Your task to perform on an android device: open a new tab in the chrome app Image 0: 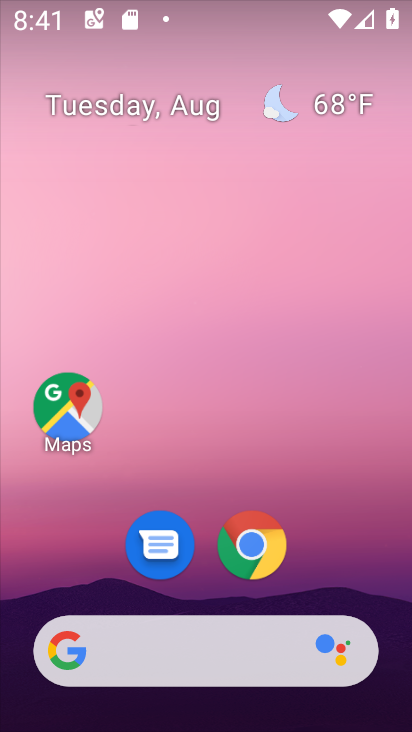
Step 0: drag from (229, 487) to (247, 176)
Your task to perform on an android device: open a new tab in the chrome app Image 1: 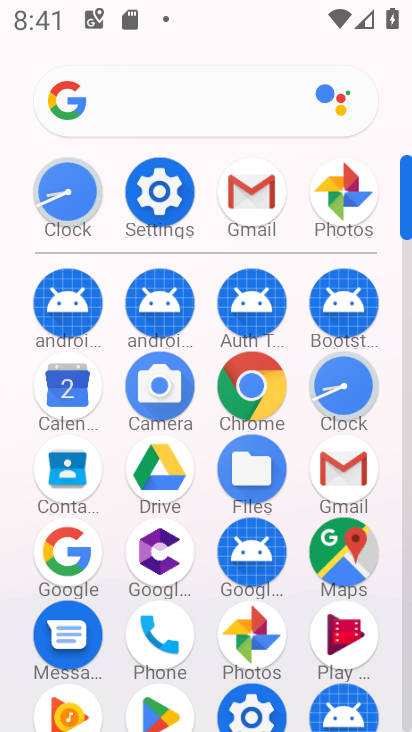
Step 1: click (219, 416)
Your task to perform on an android device: open a new tab in the chrome app Image 2: 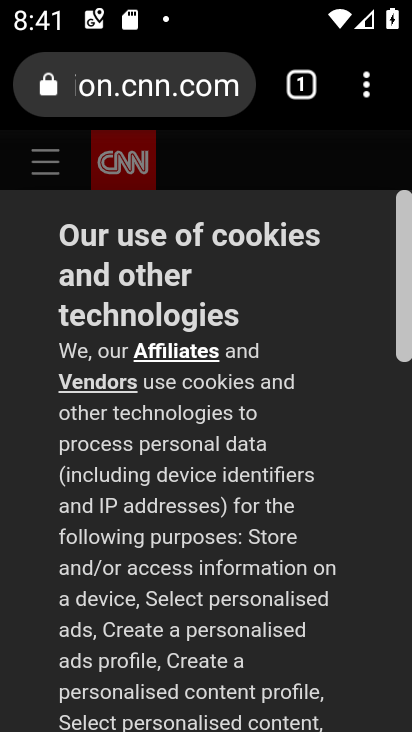
Step 2: drag from (308, 95) to (265, 391)
Your task to perform on an android device: open a new tab in the chrome app Image 3: 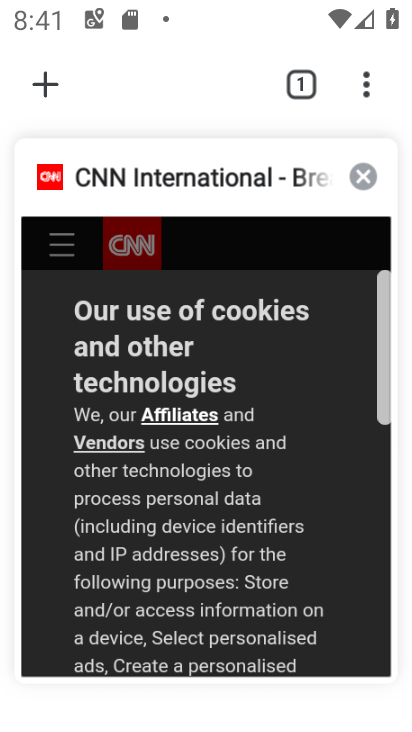
Step 3: click (45, 82)
Your task to perform on an android device: open a new tab in the chrome app Image 4: 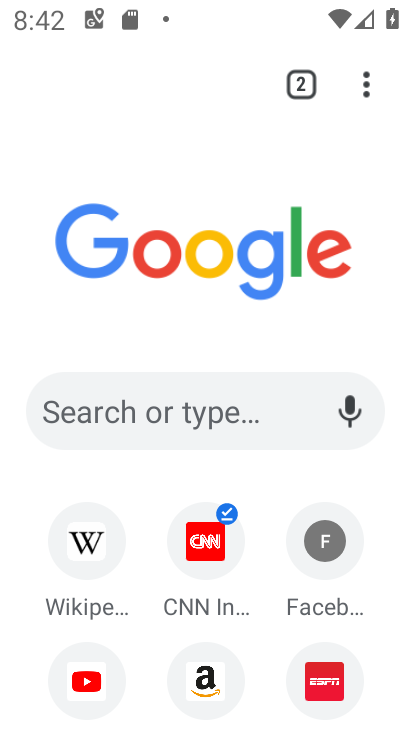
Step 4: task complete